Your task to perform on an android device: Open Amazon Image 0: 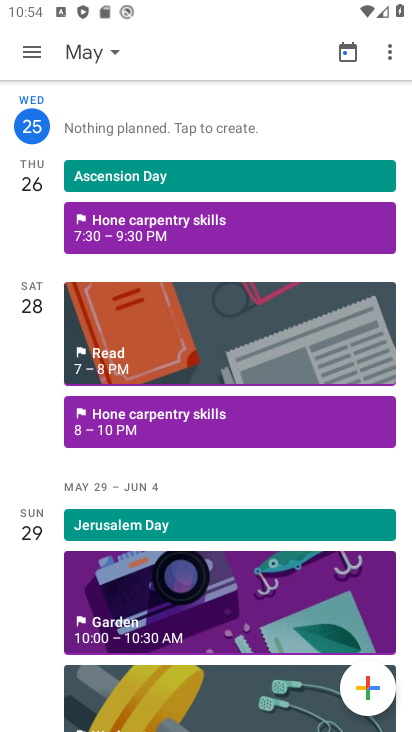
Step 0: press home button
Your task to perform on an android device: Open Amazon Image 1: 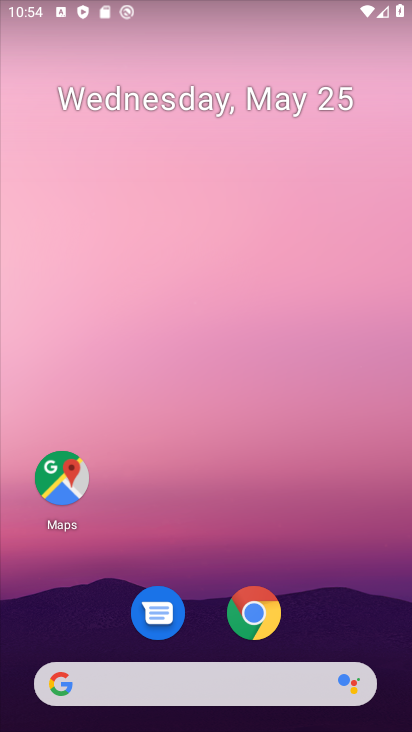
Step 1: click (252, 615)
Your task to perform on an android device: Open Amazon Image 2: 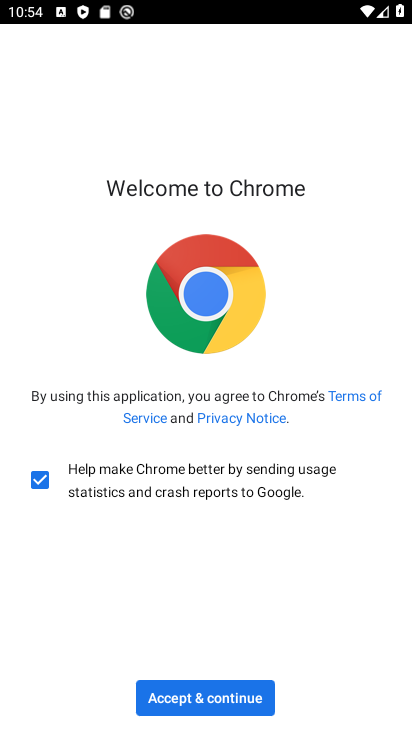
Step 2: click (271, 692)
Your task to perform on an android device: Open Amazon Image 3: 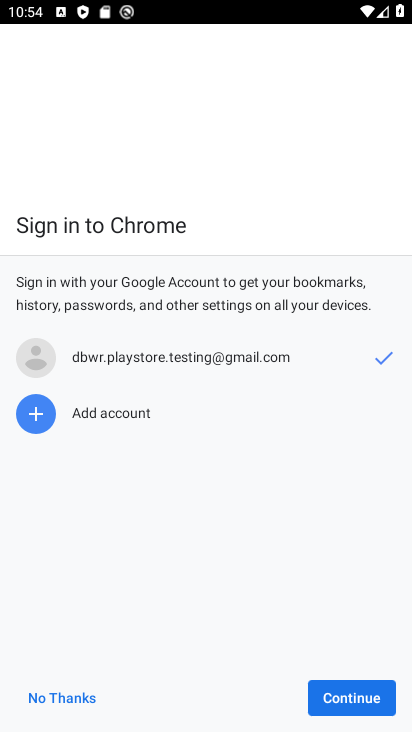
Step 3: click (329, 695)
Your task to perform on an android device: Open Amazon Image 4: 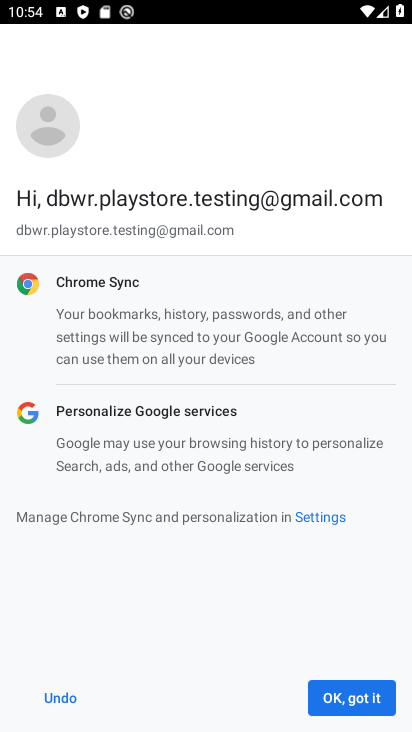
Step 4: click (349, 692)
Your task to perform on an android device: Open Amazon Image 5: 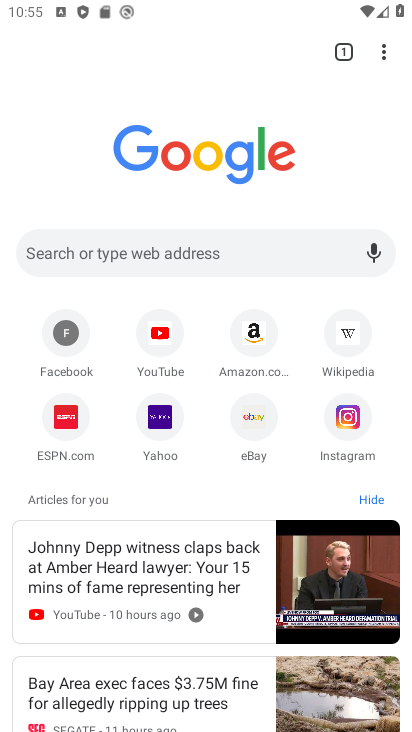
Step 5: click (257, 327)
Your task to perform on an android device: Open Amazon Image 6: 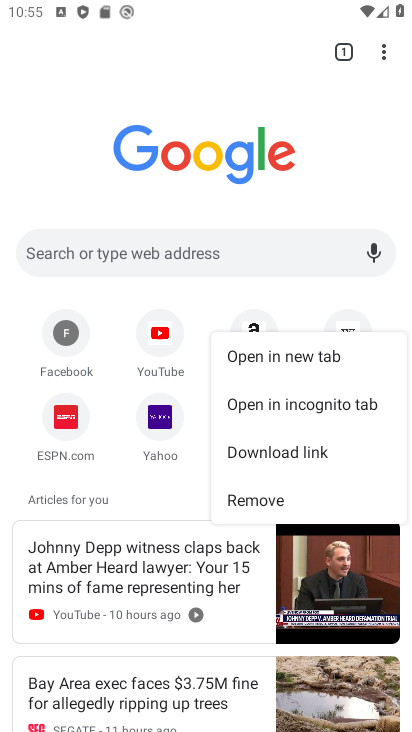
Step 6: click (257, 325)
Your task to perform on an android device: Open Amazon Image 7: 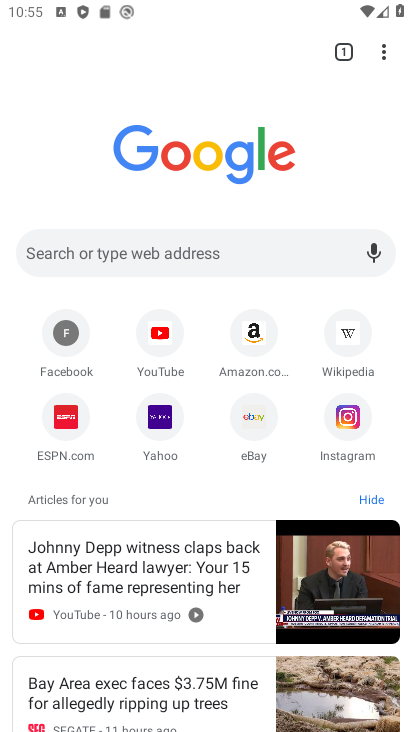
Step 7: click (257, 325)
Your task to perform on an android device: Open Amazon Image 8: 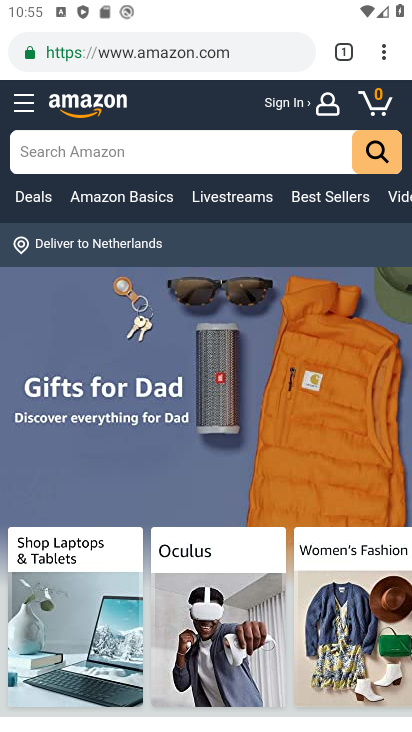
Step 8: task complete